Your task to perform on an android device: toggle airplane mode Image 0: 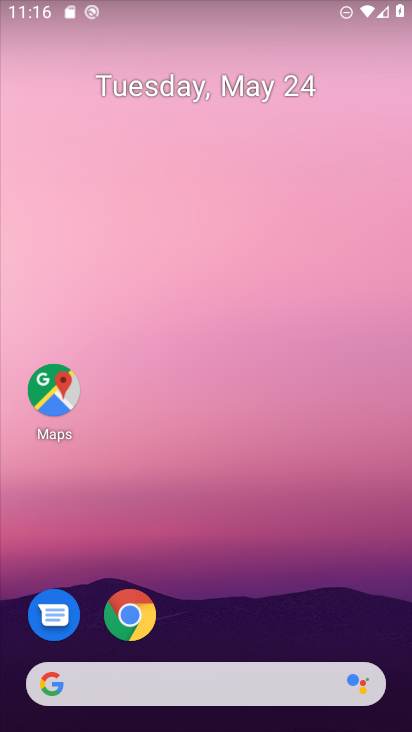
Step 0: drag from (255, 688) to (365, 157)
Your task to perform on an android device: toggle airplane mode Image 1: 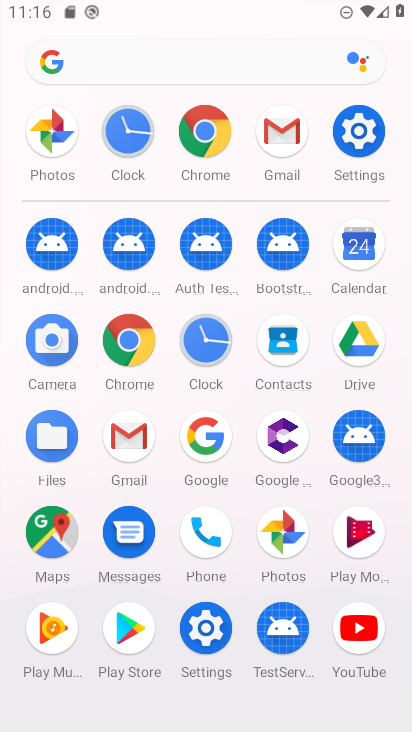
Step 1: click (368, 122)
Your task to perform on an android device: toggle airplane mode Image 2: 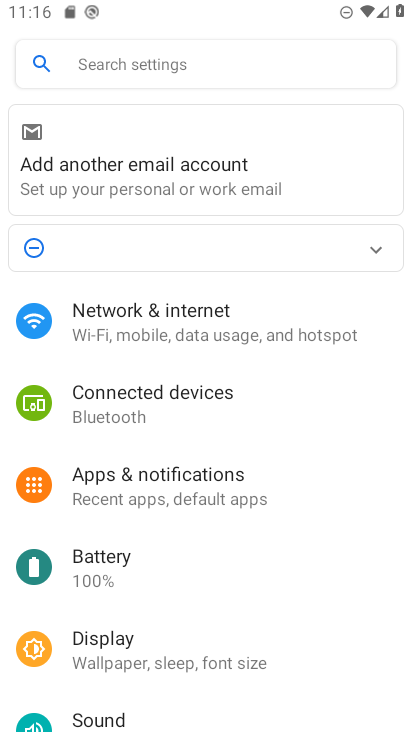
Step 2: click (131, 310)
Your task to perform on an android device: toggle airplane mode Image 3: 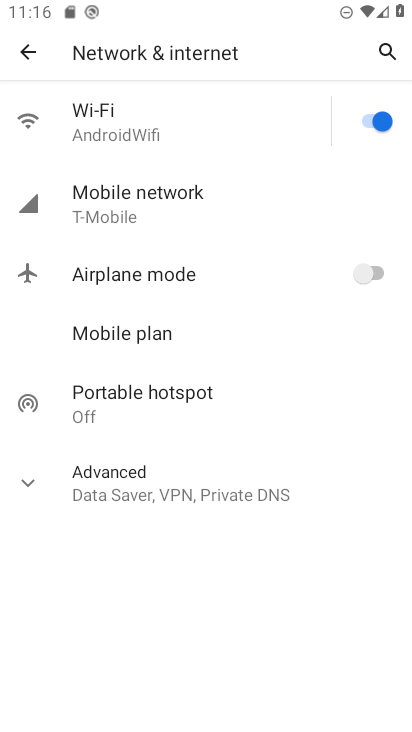
Step 3: task complete